Your task to perform on an android device: delete the emails in spam in the gmail app Image 0: 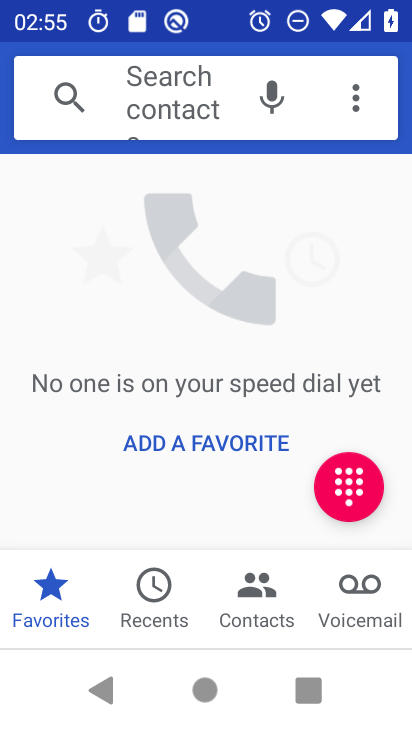
Step 0: press home button
Your task to perform on an android device: delete the emails in spam in the gmail app Image 1: 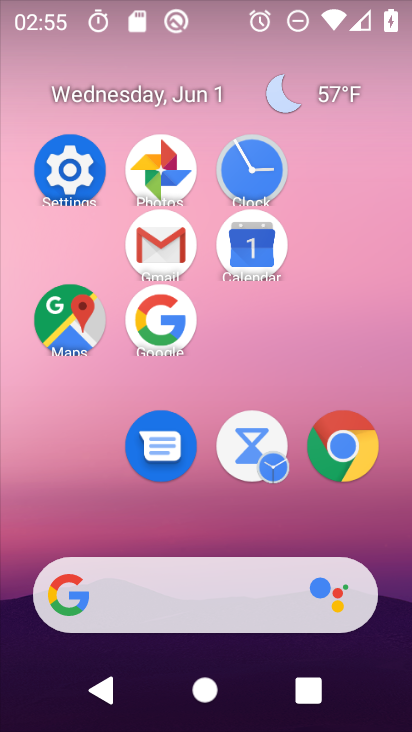
Step 1: click (158, 253)
Your task to perform on an android device: delete the emails in spam in the gmail app Image 2: 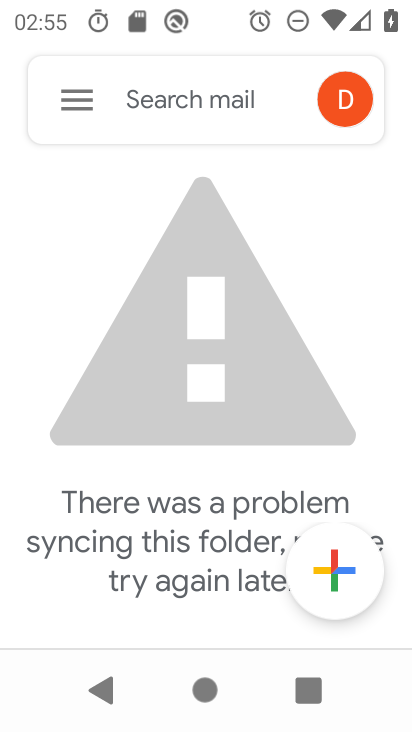
Step 2: click (61, 118)
Your task to perform on an android device: delete the emails in spam in the gmail app Image 3: 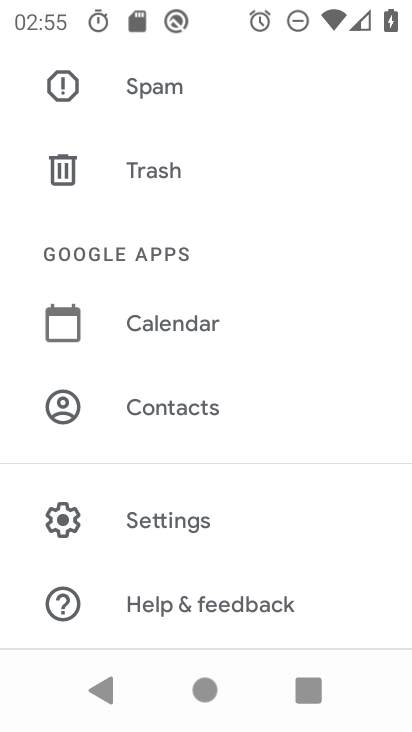
Step 3: click (193, 82)
Your task to perform on an android device: delete the emails in spam in the gmail app Image 4: 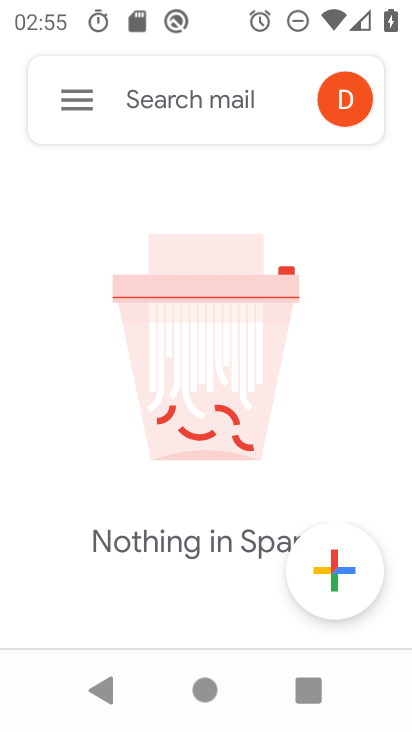
Step 4: task complete